Your task to perform on an android device: turn off airplane mode Image 0: 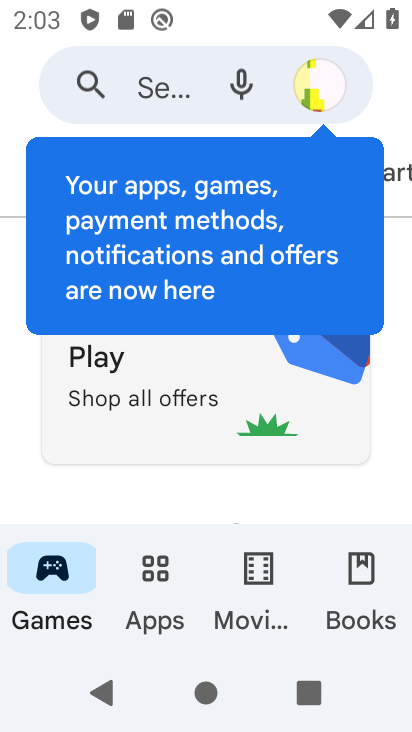
Step 0: press home button
Your task to perform on an android device: turn off airplane mode Image 1: 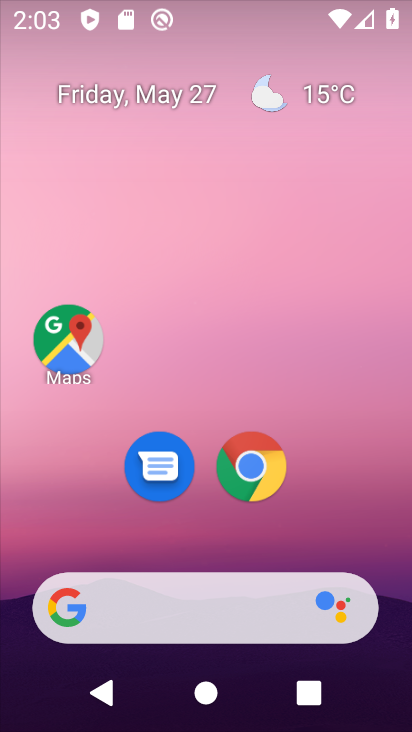
Step 1: drag from (290, 462) to (283, 186)
Your task to perform on an android device: turn off airplane mode Image 2: 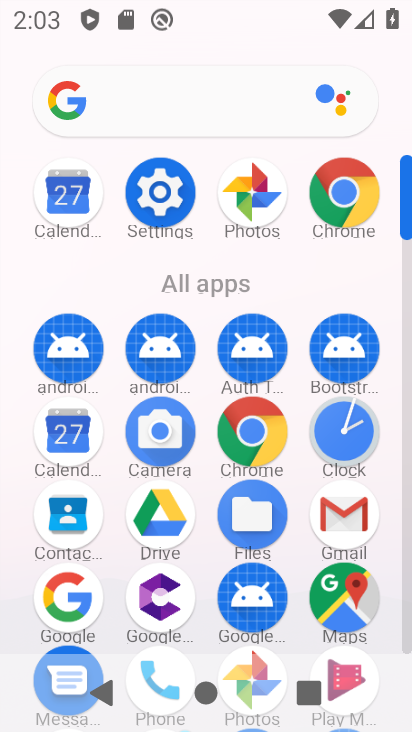
Step 2: click (181, 206)
Your task to perform on an android device: turn off airplane mode Image 3: 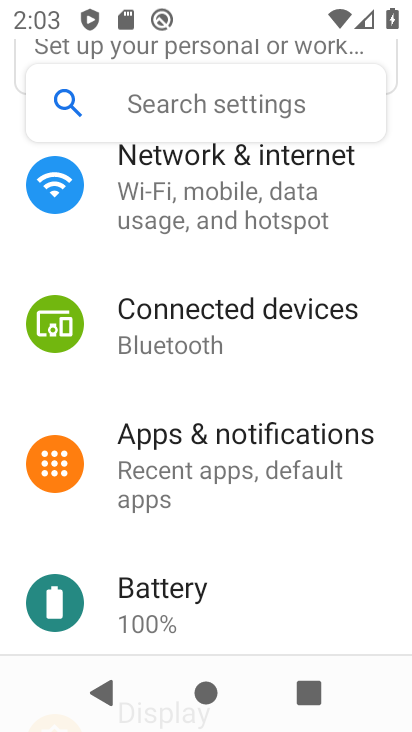
Step 3: drag from (181, 206) to (218, 605)
Your task to perform on an android device: turn off airplane mode Image 4: 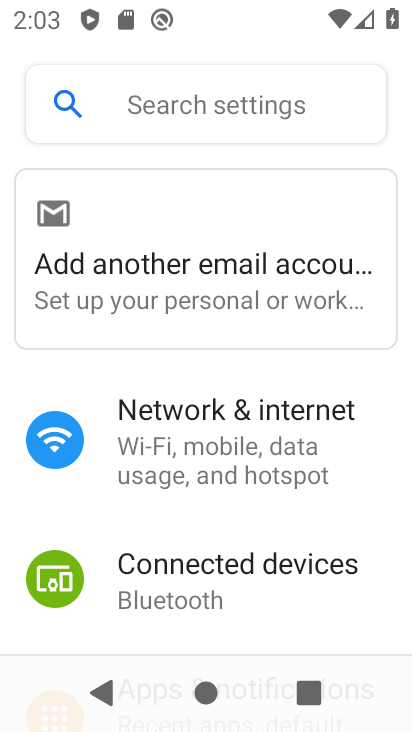
Step 4: click (234, 450)
Your task to perform on an android device: turn off airplane mode Image 5: 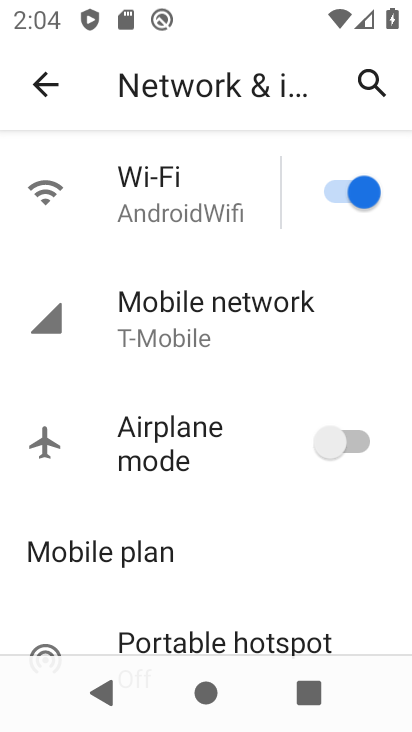
Step 5: task complete